Your task to perform on an android device: toggle wifi Image 0: 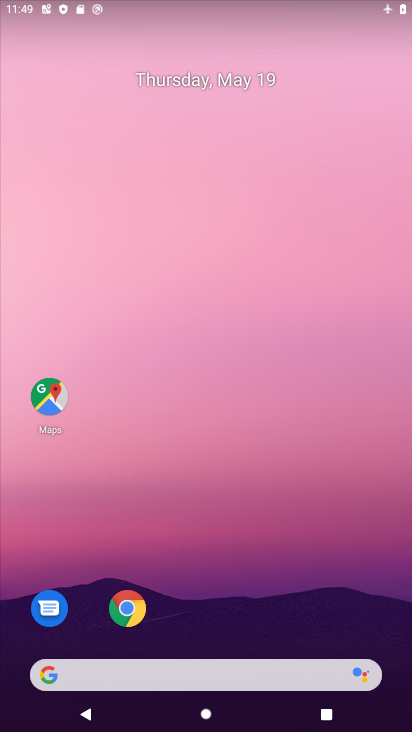
Step 0: drag from (304, 570) to (323, 108)
Your task to perform on an android device: toggle wifi Image 1: 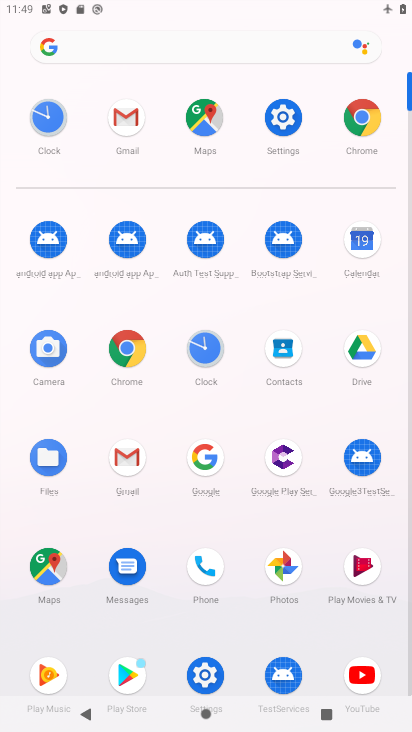
Step 1: click (287, 124)
Your task to perform on an android device: toggle wifi Image 2: 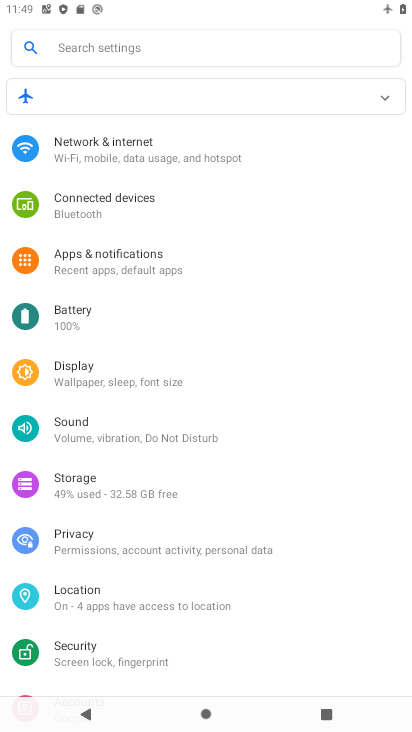
Step 2: drag from (325, 582) to (326, 442)
Your task to perform on an android device: toggle wifi Image 3: 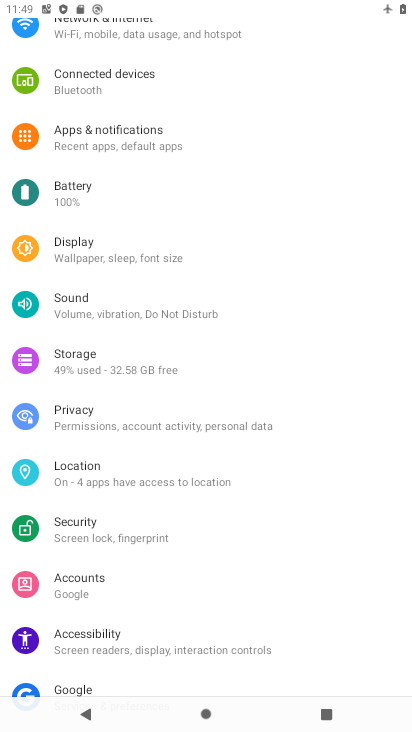
Step 3: drag from (325, 601) to (327, 466)
Your task to perform on an android device: toggle wifi Image 4: 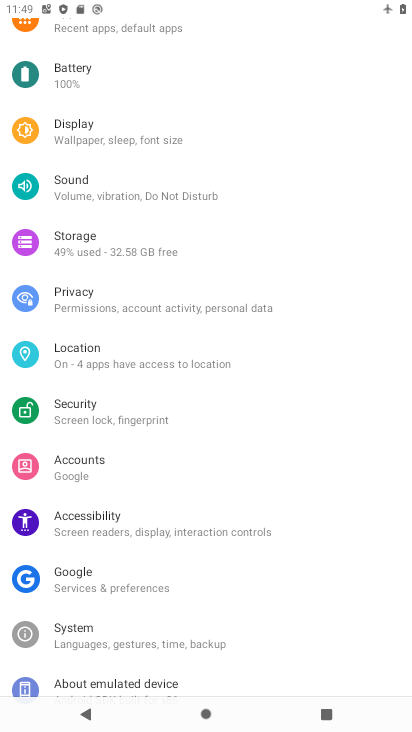
Step 4: drag from (325, 621) to (331, 459)
Your task to perform on an android device: toggle wifi Image 5: 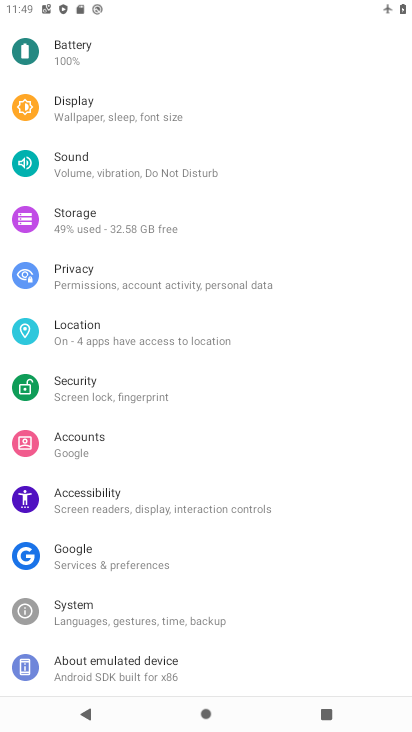
Step 5: drag from (322, 368) to (327, 477)
Your task to perform on an android device: toggle wifi Image 6: 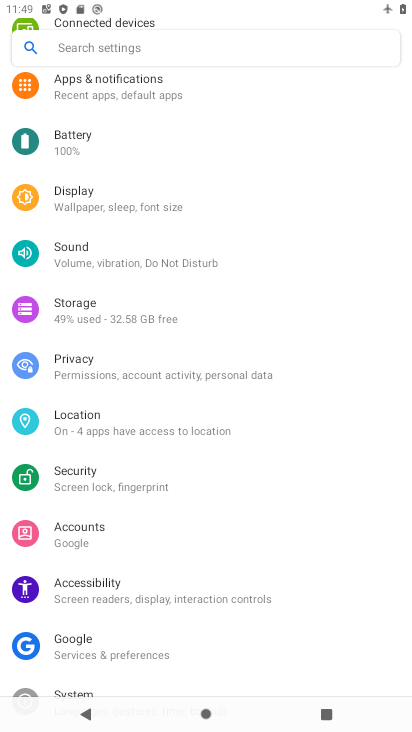
Step 6: drag from (326, 343) to (328, 449)
Your task to perform on an android device: toggle wifi Image 7: 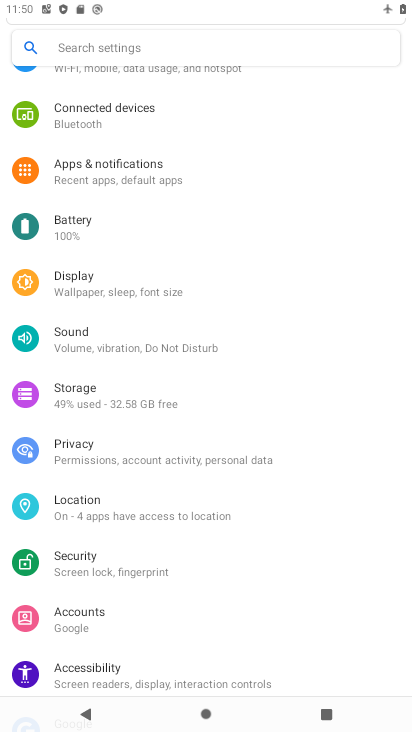
Step 7: drag from (326, 338) to (339, 436)
Your task to perform on an android device: toggle wifi Image 8: 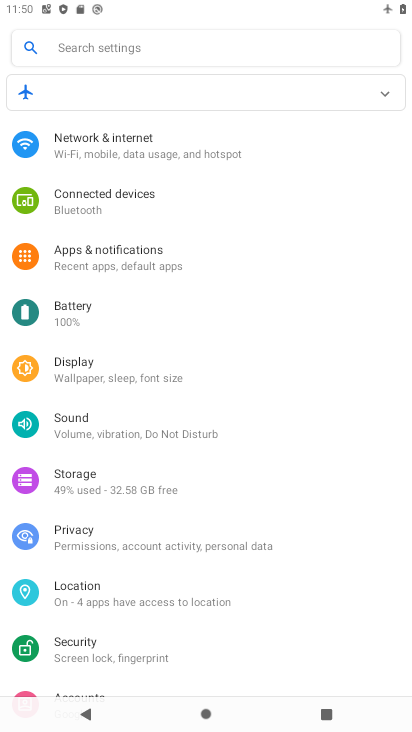
Step 8: drag from (327, 314) to (329, 404)
Your task to perform on an android device: toggle wifi Image 9: 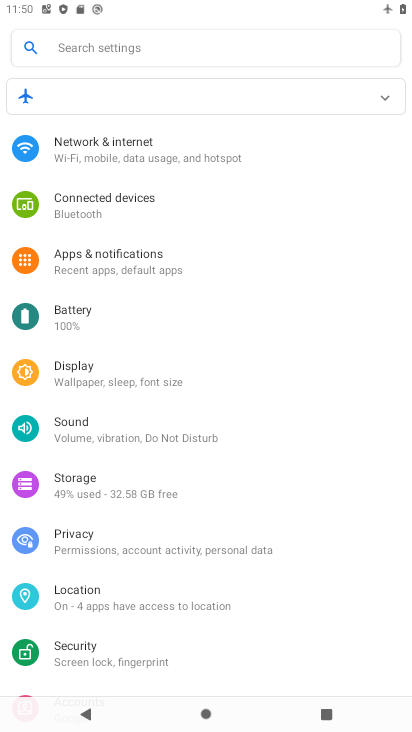
Step 9: drag from (325, 325) to (325, 438)
Your task to perform on an android device: toggle wifi Image 10: 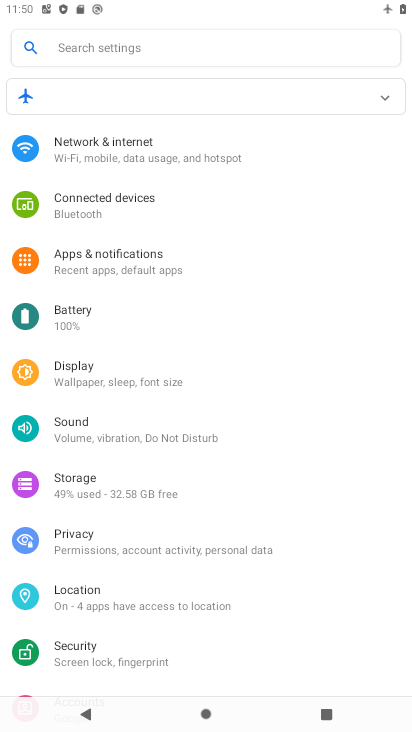
Step 10: drag from (323, 268) to (342, 359)
Your task to perform on an android device: toggle wifi Image 11: 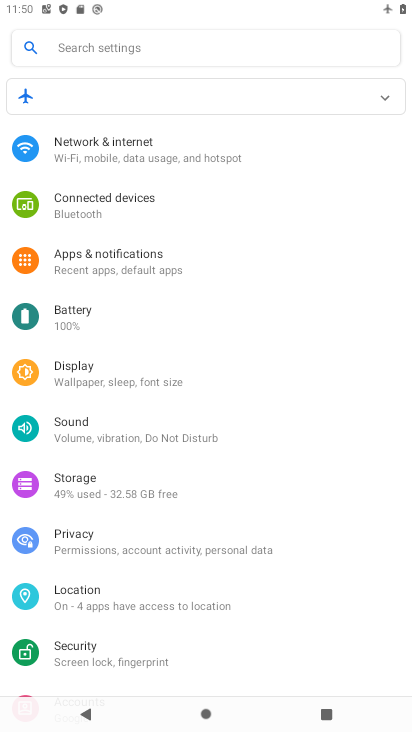
Step 11: drag from (327, 194) to (327, 307)
Your task to perform on an android device: toggle wifi Image 12: 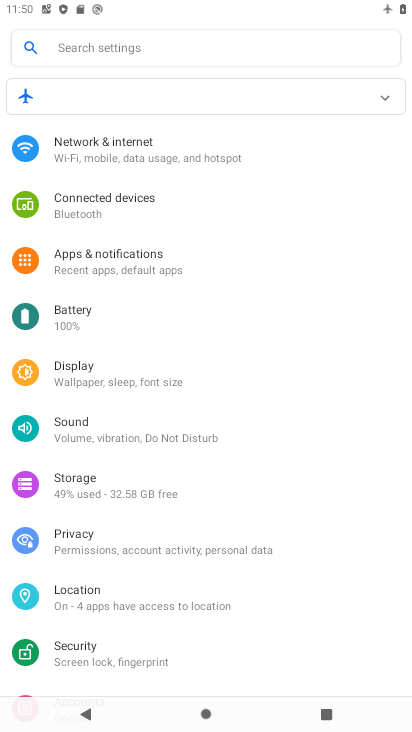
Step 12: click (232, 169)
Your task to perform on an android device: toggle wifi Image 13: 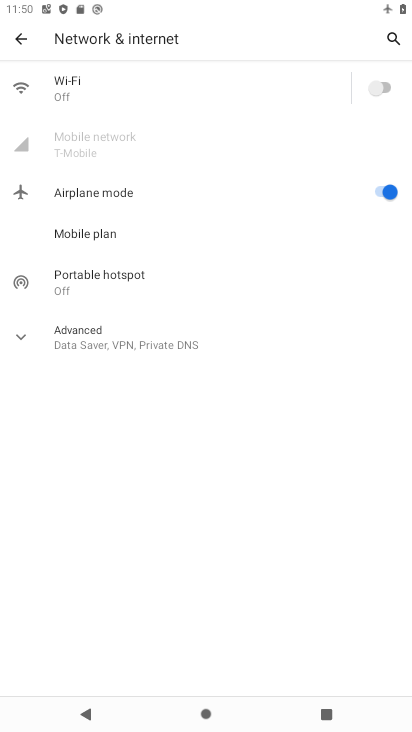
Step 13: click (364, 103)
Your task to perform on an android device: toggle wifi Image 14: 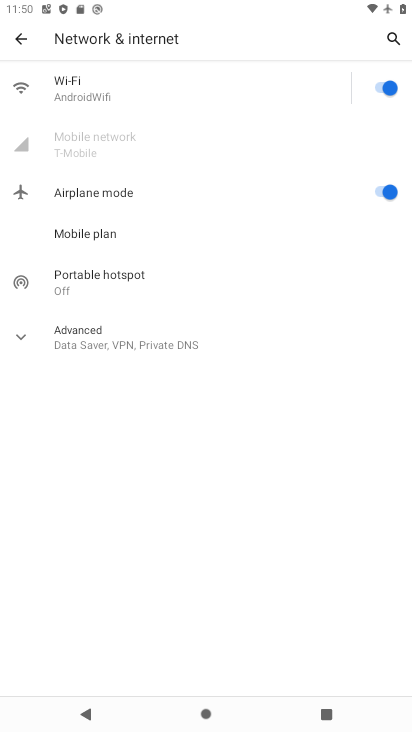
Step 14: task complete